Your task to perform on an android device: Check the weather Image 0: 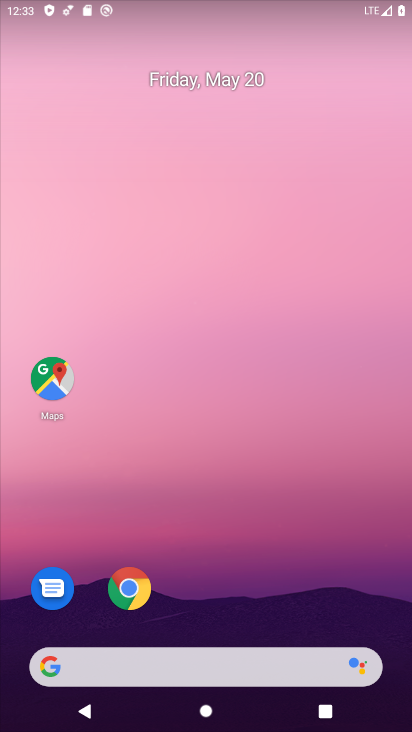
Step 0: drag from (18, 203) to (302, 252)
Your task to perform on an android device: Check the weather Image 1: 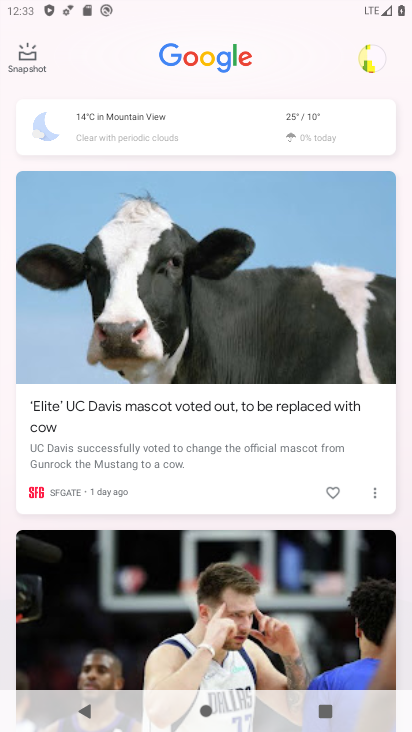
Step 1: click (304, 112)
Your task to perform on an android device: Check the weather Image 2: 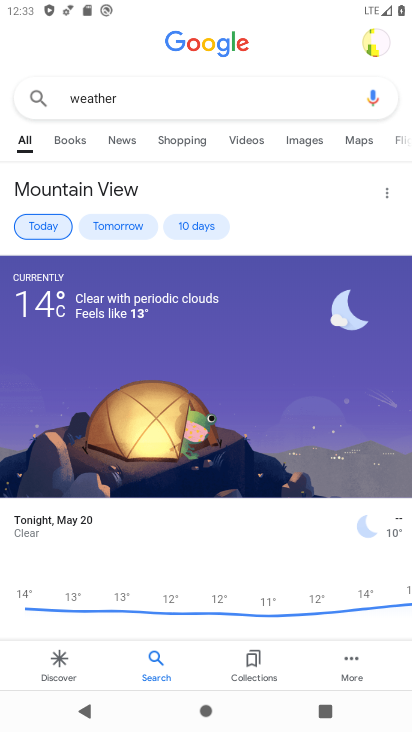
Step 2: task complete